Your task to perform on an android device: Open settings on Google Maps Image 0: 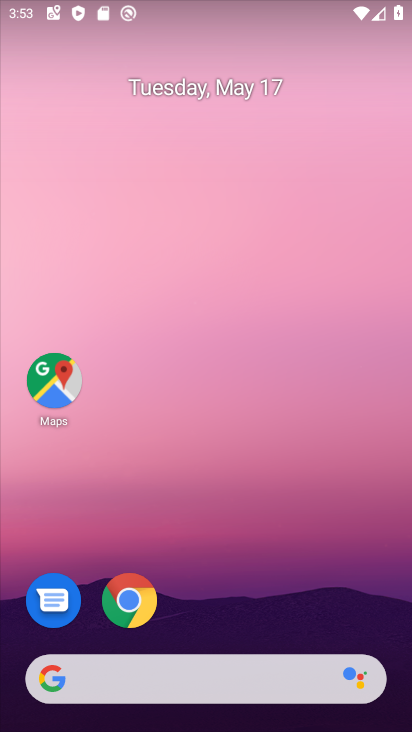
Step 0: drag from (219, 612) to (285, 51)
Your task to perform on an android device: Open settings on Google Maps Image 1: 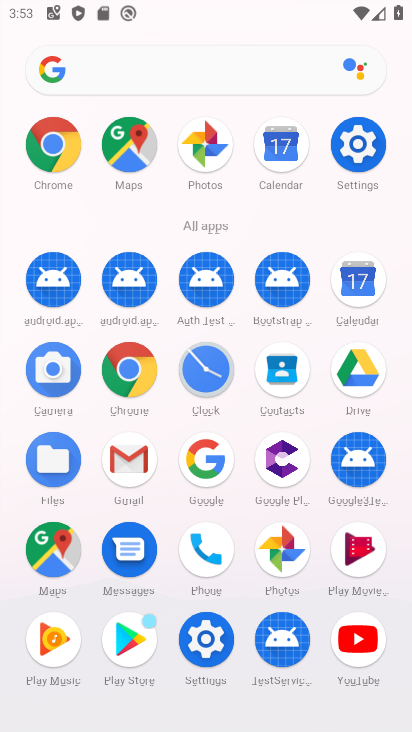
Step 1: click (65, 550)
Your task to perform on an android device: Open settings on Google Maps Image 2: 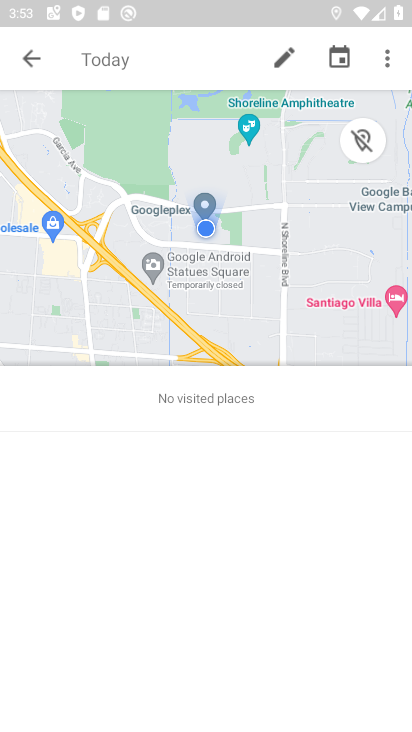
Step 2: click (30, 57)
Your task to perform on an android device: Open settings on Google Maps Image 3: 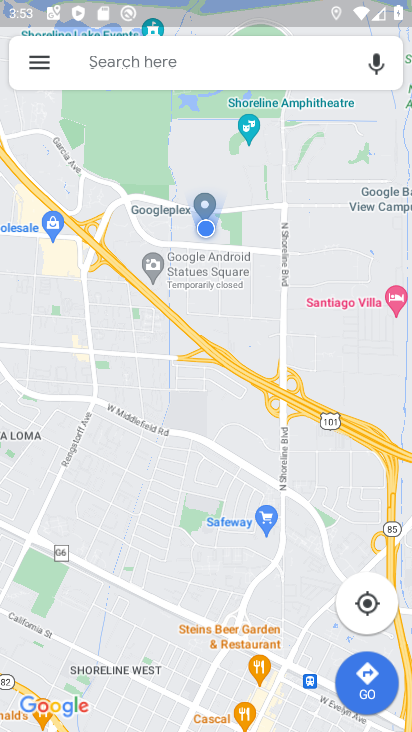
Step 3: click (31, 58)
Your task to perform on an android device: Open settings on Google Maps Image 4: 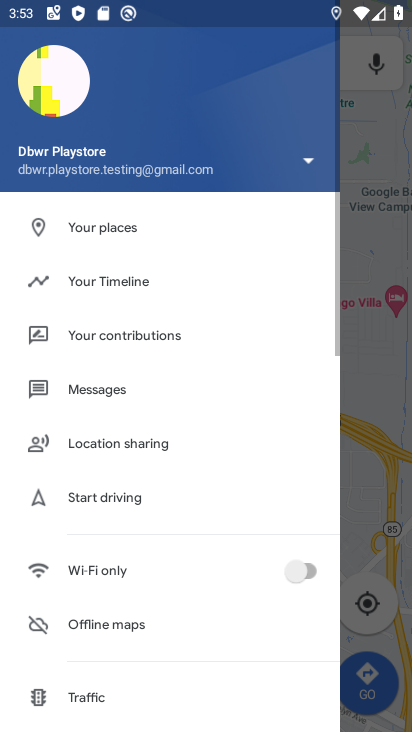
Step 4: drag from (95, 562) to (162, 173)
Your task to perform on an android device: Open settings on Google Maps Image 5: 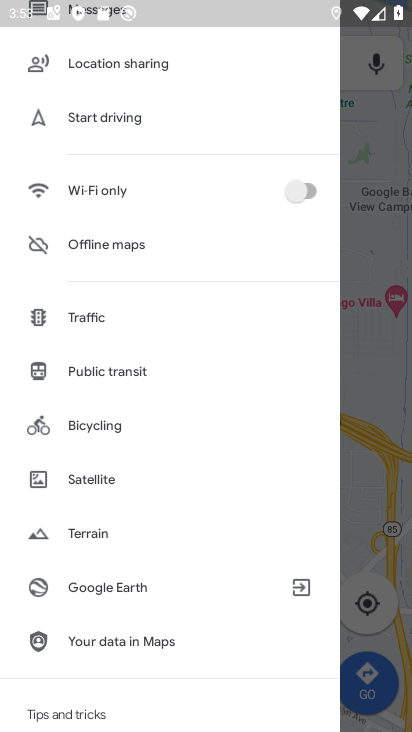
Step 5: drag from (99, 628) to (157, 263)
Your task to perform on an android device: Open settings on Google Maps Image 6: 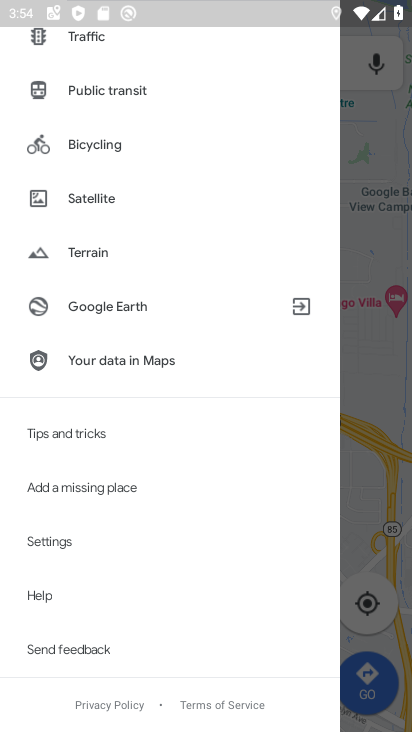
Step 6: click (63, 538)
Your task to perform on an android device: Open settings on Google Maps Image 7: 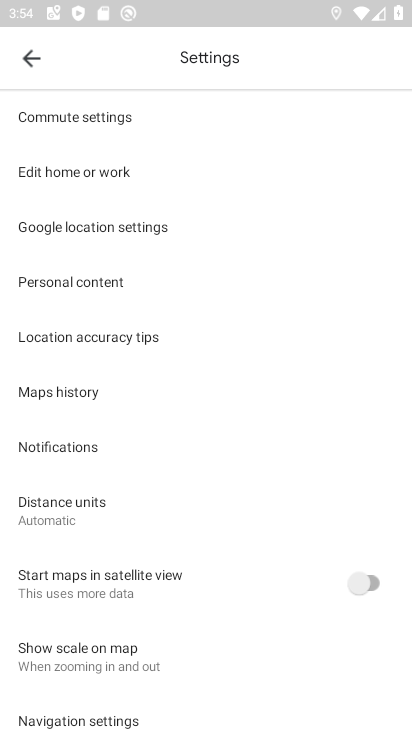
Step 7: task complete